Your task to perform on an android device: change text size in settings app Image 0: 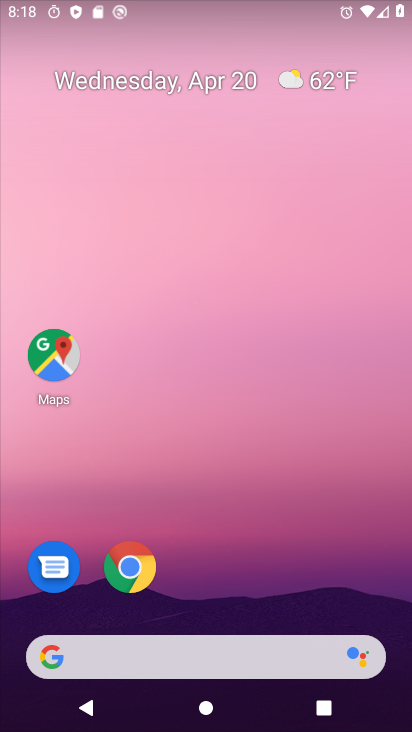
Step 0: drag from (365, 608) to (335, 42)
Your task to perform on an android device: change text size in settings app Image 1: 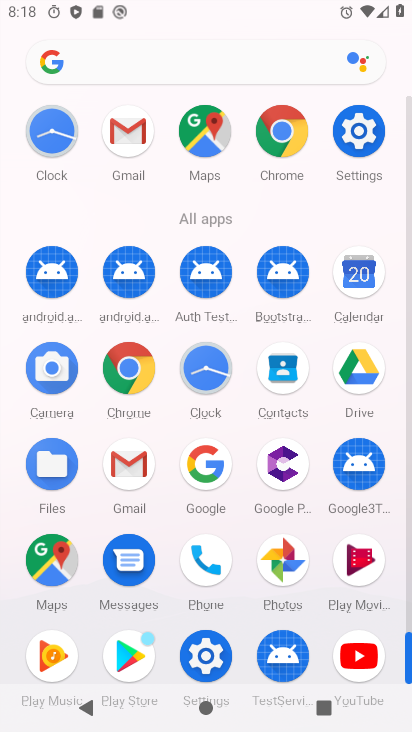
Step 1: click (352, 137)
Your task to perform on an android device: change text size in settings app Image 2: 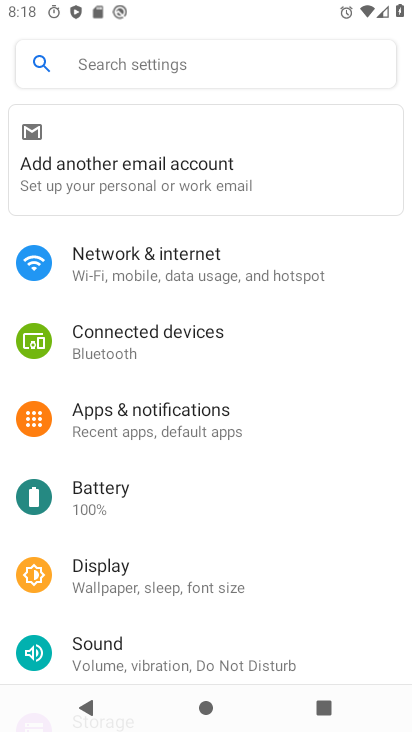
Step 2: click (117, 564)
Your task to perform on an android device: change text size in settings app Image 3: 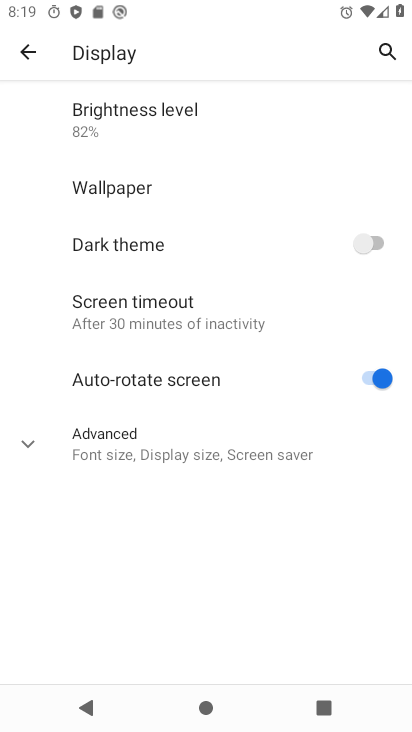
Step 3: click (28, 447)
Your task to perform on an android device: change text size in settings app Image 4: 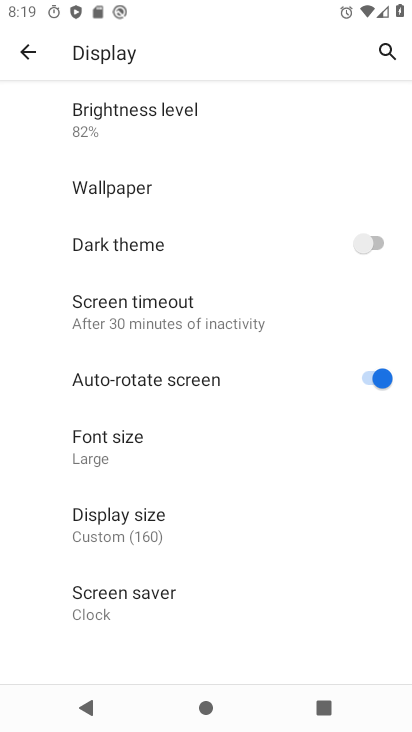
Step 4: click (91, 455)
Your task to perform on an android device: change text size in settings app Image 5: 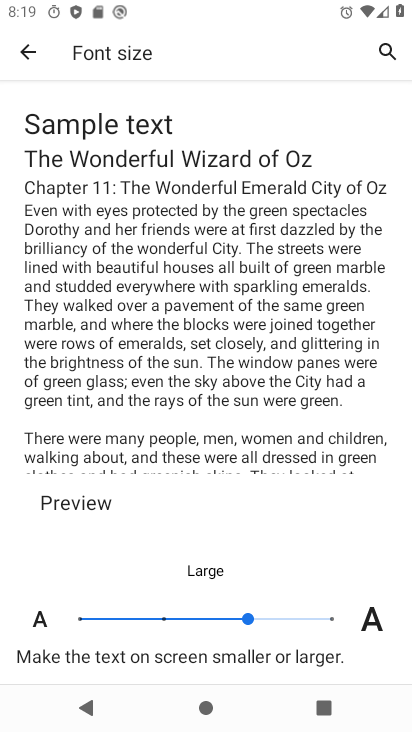
Step 5: click (161, 617)
Your task to perform on an android device: change text size in settings app Image 6: 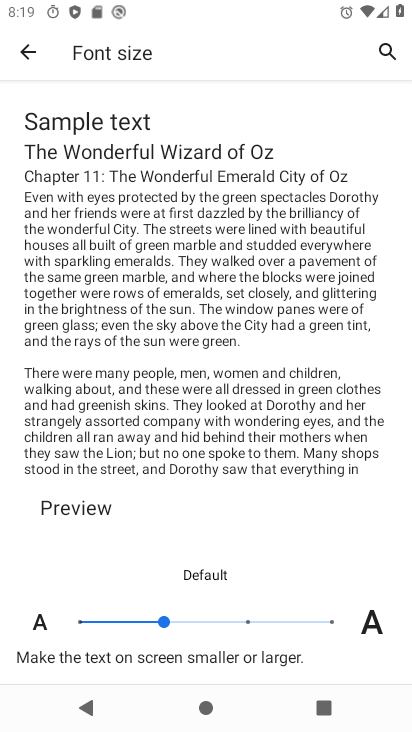
Step 6: task complete